Your task to perform on an android device: Open the map Image 0: 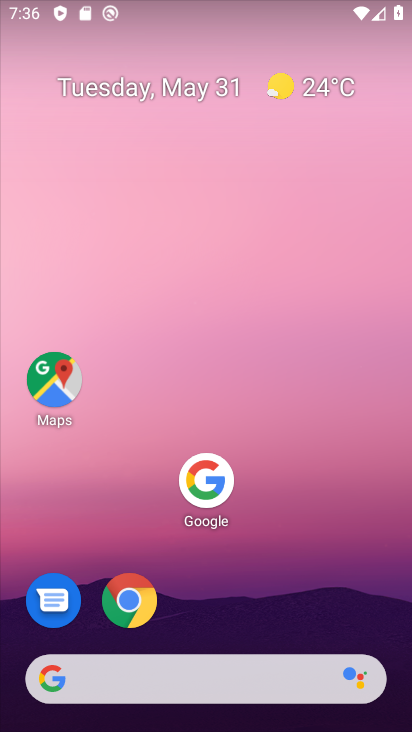
Step 0: click (55, 381)
Your task to perform on an android device: Open the map Image 1: 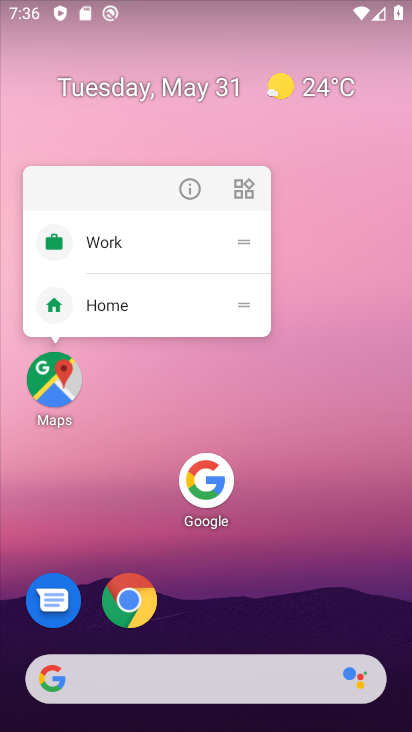
Step 1: click (55, 383)
Your task to perform on an android device: Open the map Image 2: 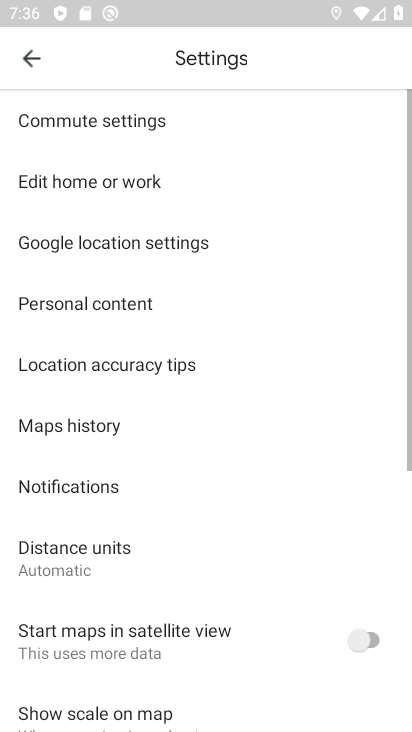
Step 2: click (28, 50)
Your task to perform on an android device: Open the map Image 3: 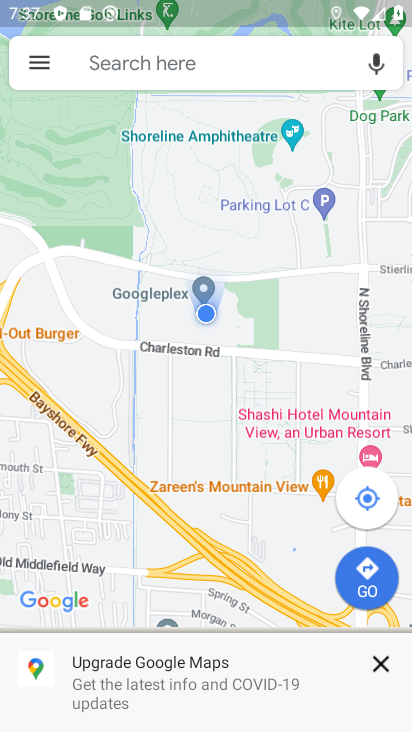
Step 3: task complete